Your task to perform on an android device: Open settings on Google Maps Image 0: 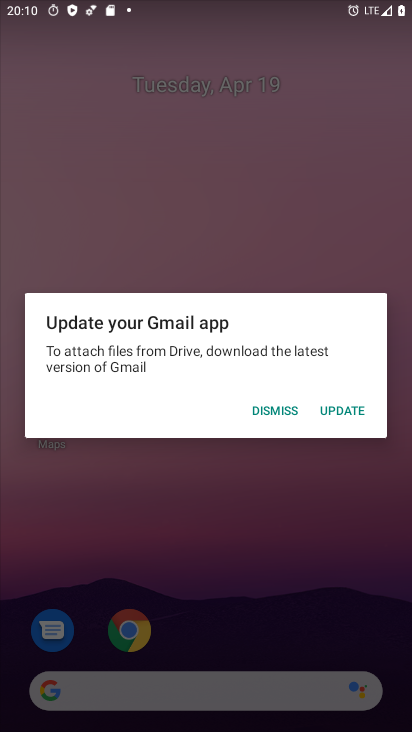
Step 0: press home button
Your task to perform on an android device: Open settings on Google Maps Image 1: 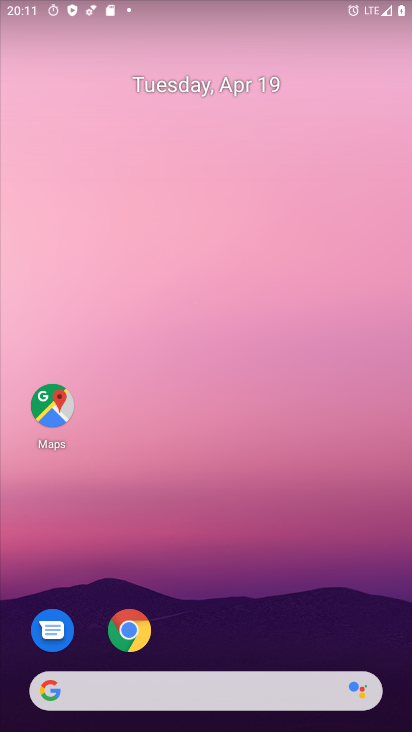
Step 1: click (47, 400)
Your task to perform on an android device: Open settings on Google Maps Image 2: 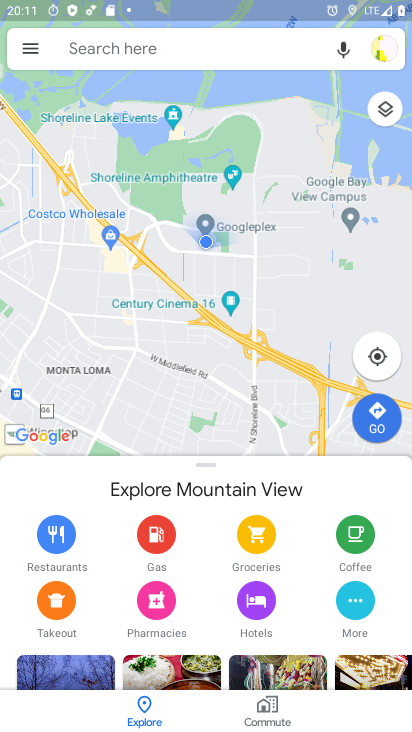
Step 2: click (28, 45)
Your task to perform on an android device: Open settings on Google Maps Image 3: 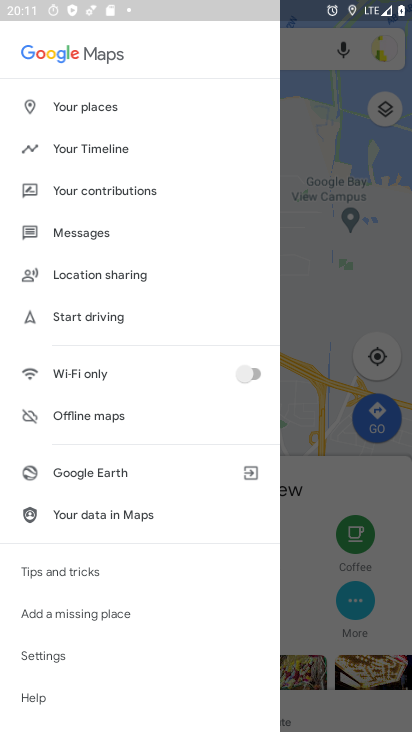
Step 3: click (60, 649)
Your task to perform on an android device: Open settings on Google Maps Image 4: 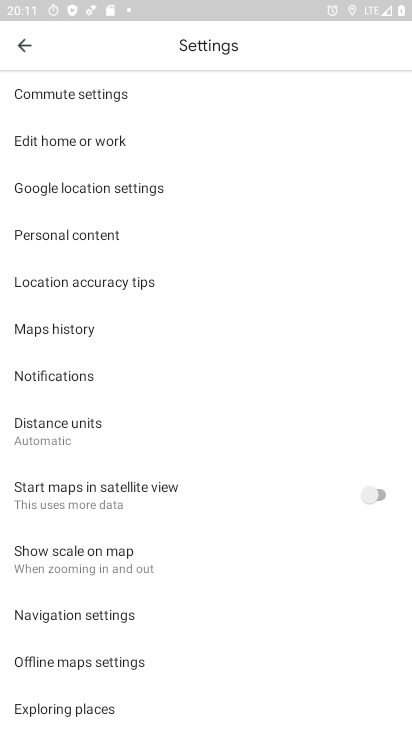
Step 4: task complete